Your task to perform on an android device: choose inbox layout in the gmail app Image 0: 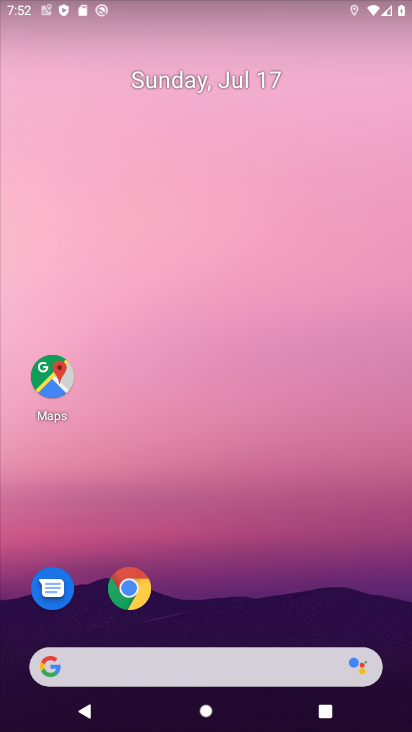
Step 0: drag from (207, 668) to (225, 286)
Your task to perform on an android device: choose inbox layout in the gmail app Image 1: 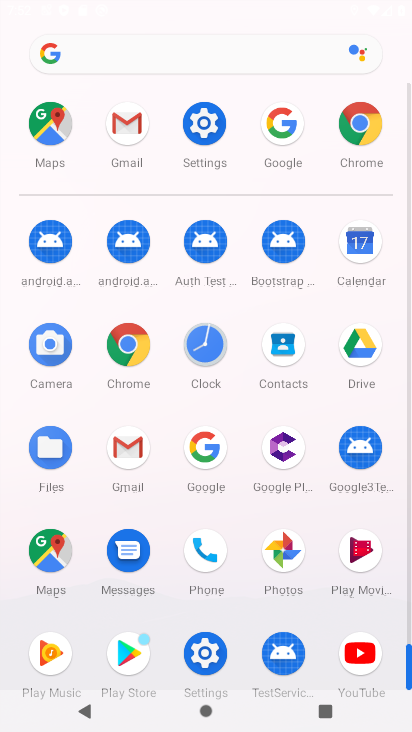
Step 1: click (130, 467)
Your task to perform on an android device: choose inbox layout in the gmail app Image 2: 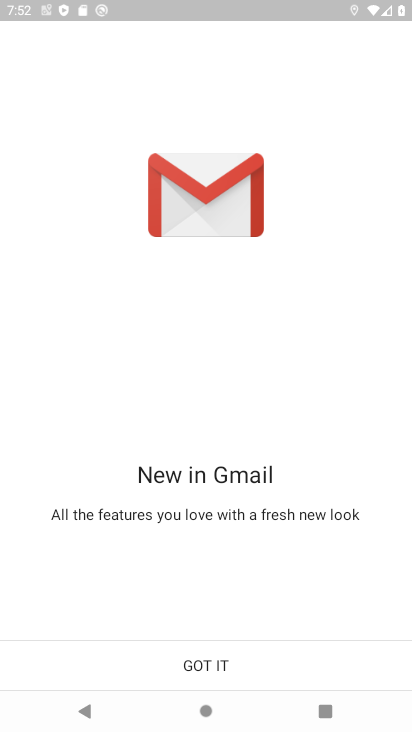
Step 2: click (231, 667)
Your task to perform on an android device: choose inbox layout in the gmail app Image 3: 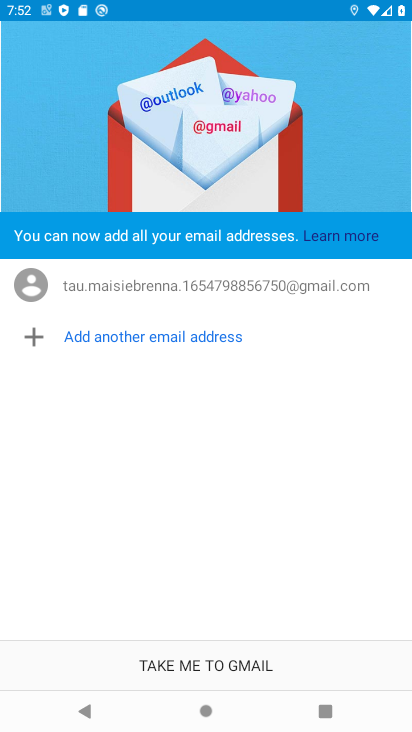
Step 3: click (248, 671)
Your task to perform on an android device: choose inbox layout in the gmail app Image 4: 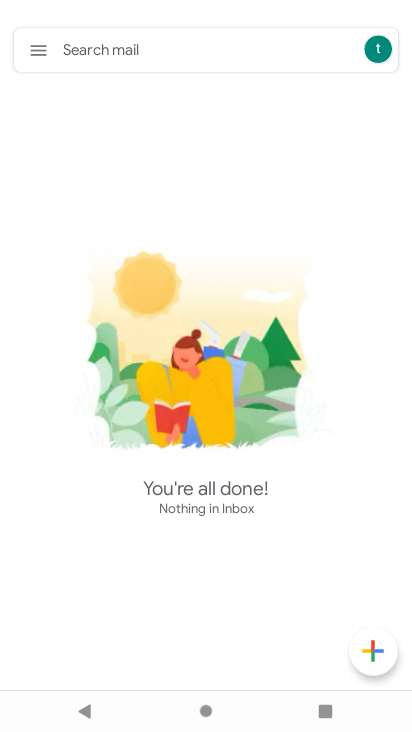
Step 4: click (36, 51)
Your task to perform on an android device: choose inbox layout in the gmail app Image 5: 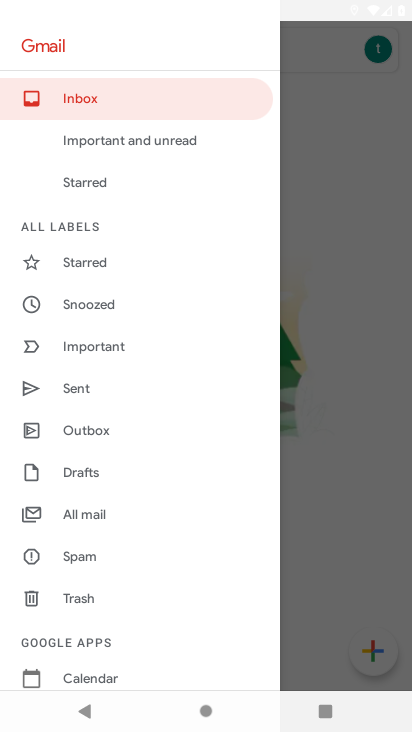
Step 5: task complete